Your task to perform on an android device: Show me popular games on the Play Store Image 0: 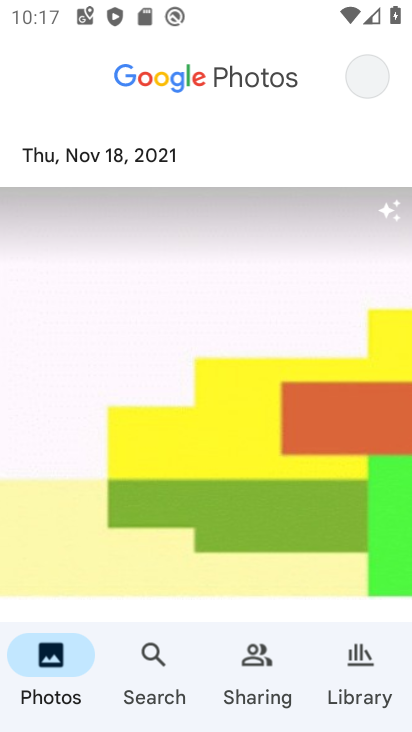
Step 0: press home button
Your task to perform on an android device: Show me popular games on the Play Store Image 1: 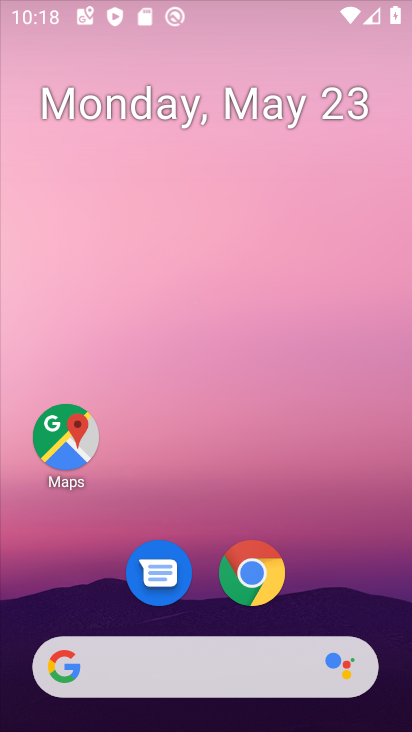
Step 1: drag from (198, 660) to (141, 128)
Your task to perform on an android device: Show me popular games on the Play Store Image 2: 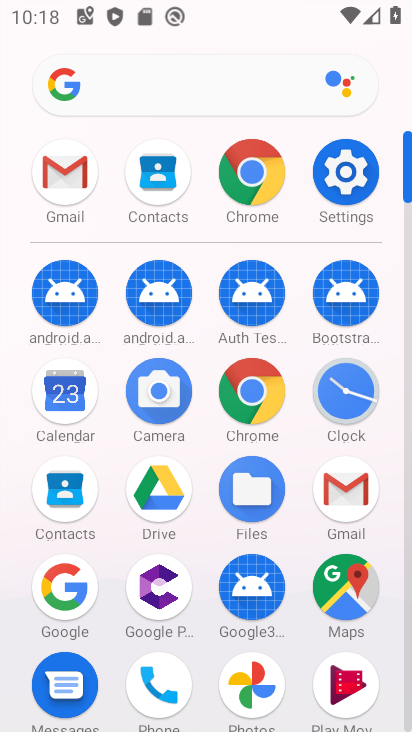
Step 2: drag from (281, 604) to (276, 141)
Your task to perform on an android device: Show me popular games on the Play Store Image 3: 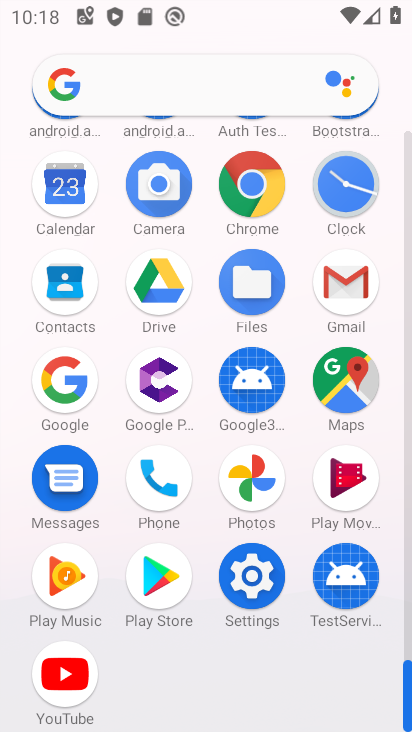
Step 3: click (164, 594)
Your task to perform on an android device: Show me popular games on the Play Store Image 4: 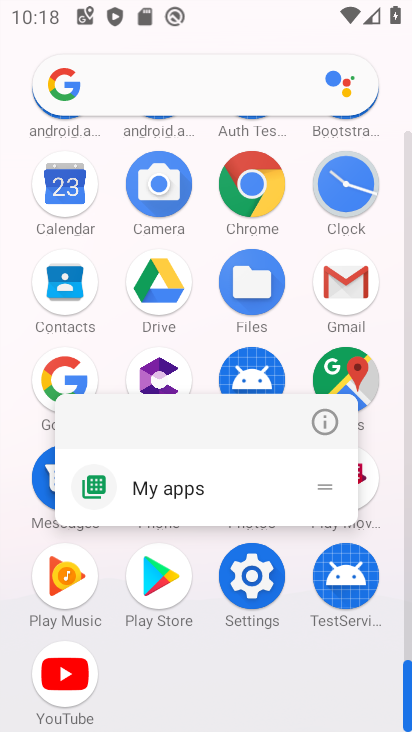
Step 4: click (166, 610)
Your task to perform on an android device: Show me popular games on the Play Store Image 5: 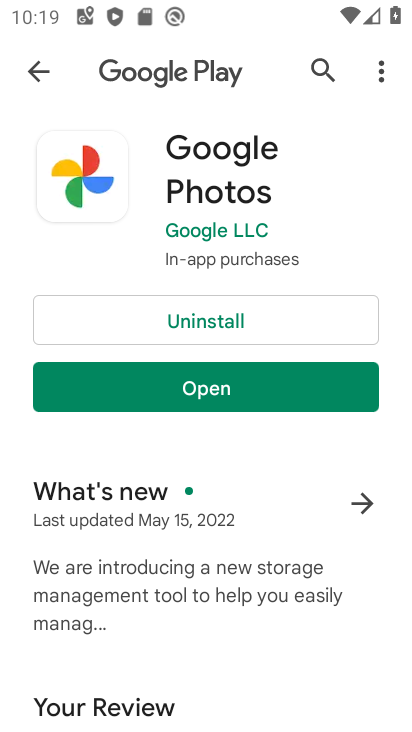
Step 5: click (42, 79)
Your task to perform on an android device: Show me popular games on the Play Store Image 6: 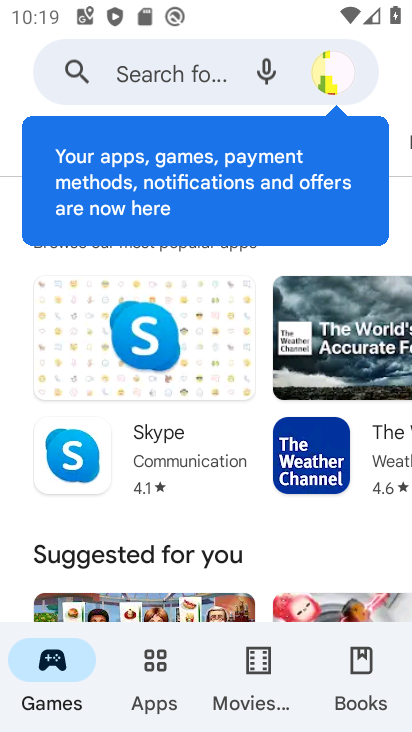
Step 6: task complete